Your task to perform on an android device: toggle priority inbox in the gmail app Image 0: 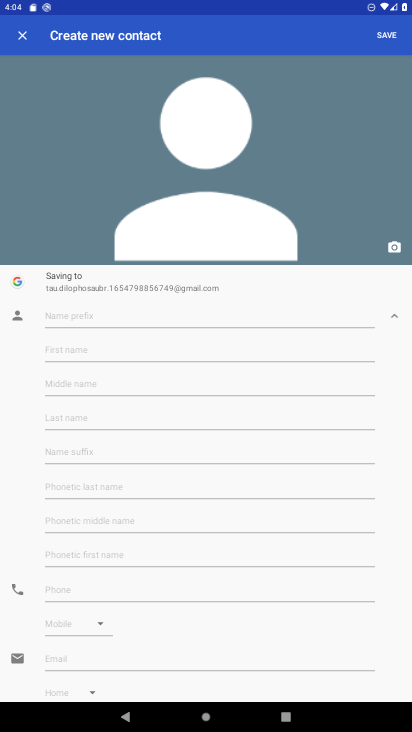
Step 0: press home button
Your task to perform on an android device: toggle priority inbox in the gmail app Image 1: 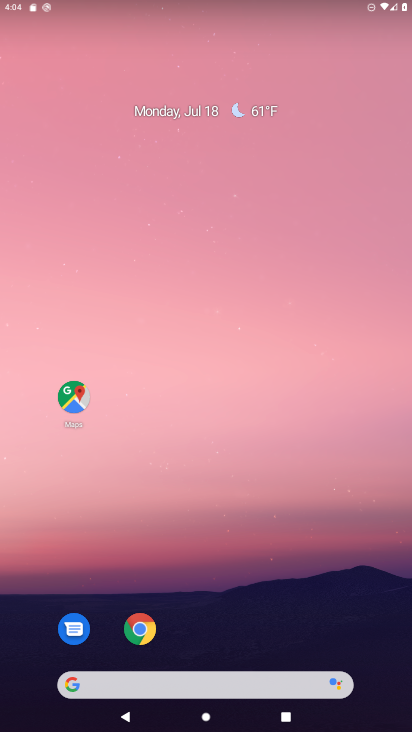
Step 1: drag from (206, 686) to (278, 357)
Your task to perform on an android device: toggle priority inbox in the gmail app Image 2: 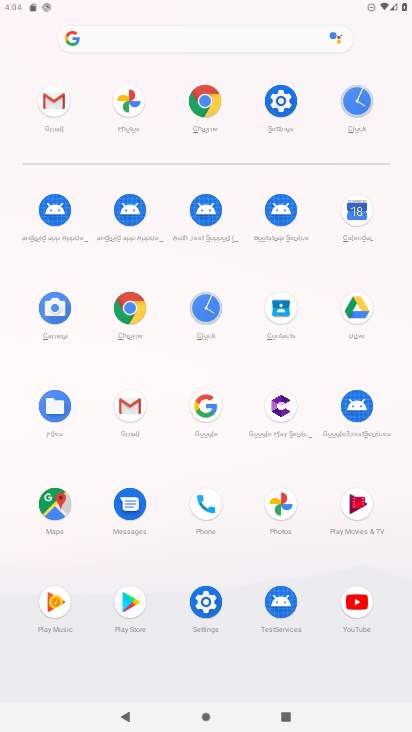
Step 2: click (143, 404)
Your task to perform on an android device: toggle priority inbox in the gmail app Image 3: 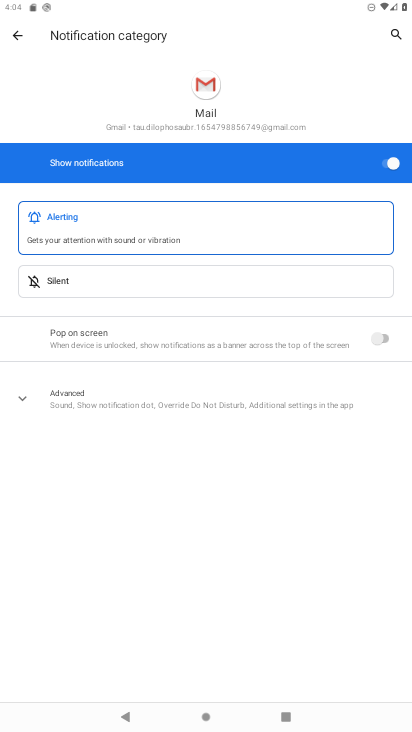
Step 3: click (26, 38)
Your task to perform on an android device: toggle priority inbox in the gmail app Image 4: 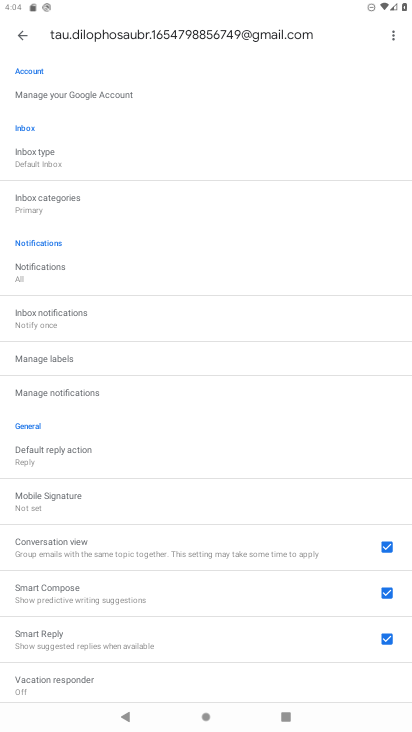
Step 4: click (44, 206)
Your task to perform on an android device: toggle priority inbox in the gmail app Image 5: 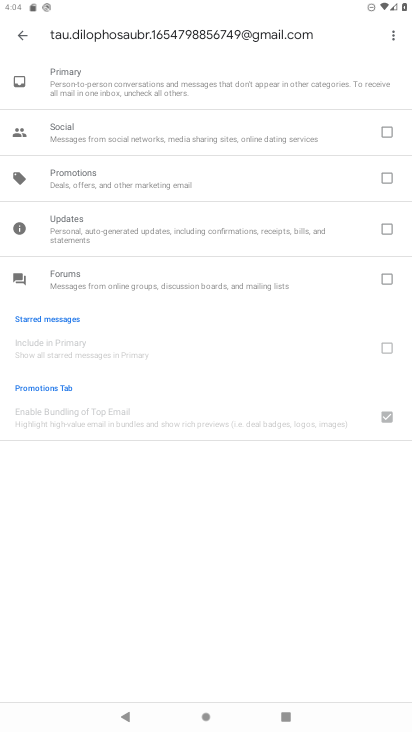
Step 5: click (17, 45)
Your task to perform on an android device: toggle priority inbox in the gmail app Image 6: 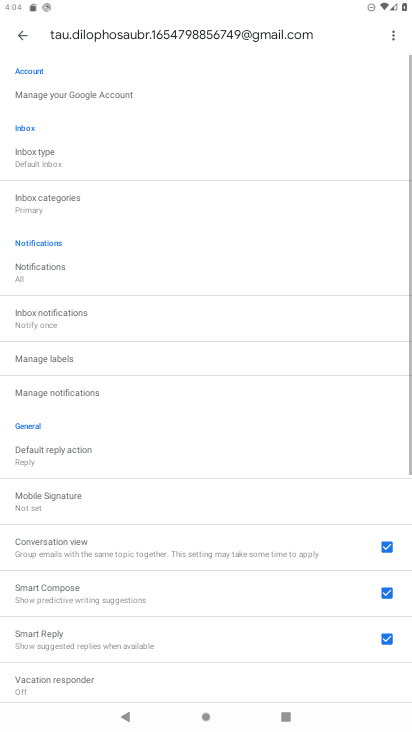
Step 6: click (48, 153)
Your task to perform on an android device: toggle priority inbox in the gmail app Image 7: 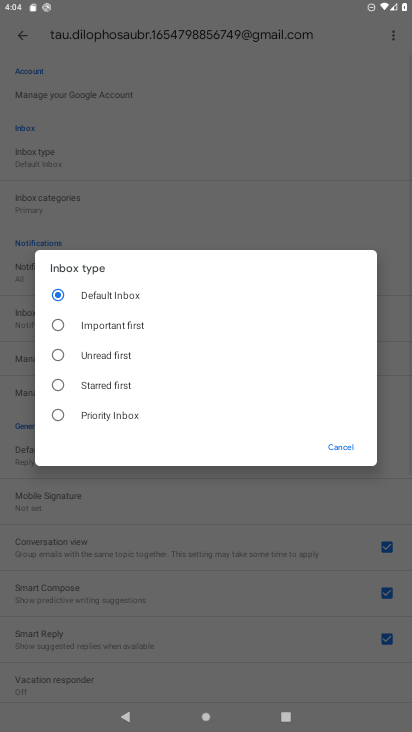
Step 7: click (135, 411)
Your task to perform on an android device: toggle priority inbox in the gmail app Image 8: 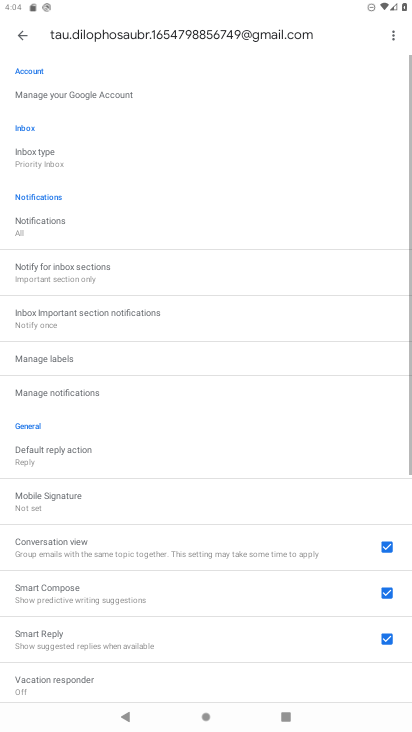
Step 8: task complete